Your task to perform on an android device: change keyboard looks Image 0: 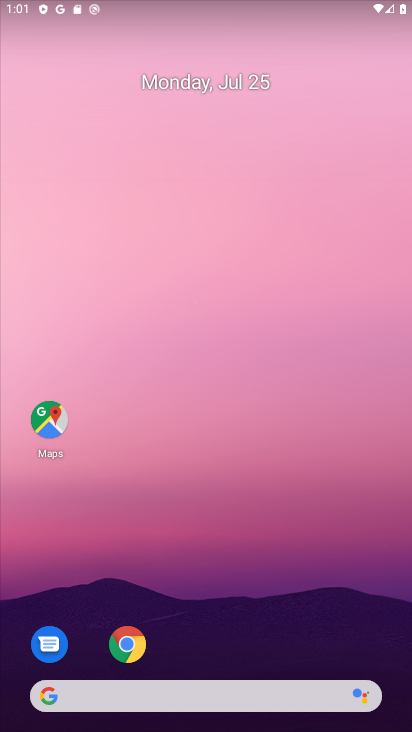
Step 0: drag from (310, 627) to (296, 89)
Your task to perform on an android device: change keyboard looks Image 1: 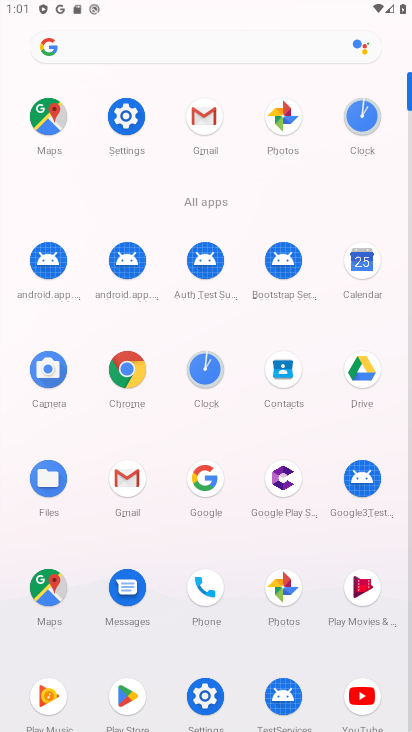
Step 1: click (121, 112)
Your task to perform on an android device: change keyboard looks Image 2: 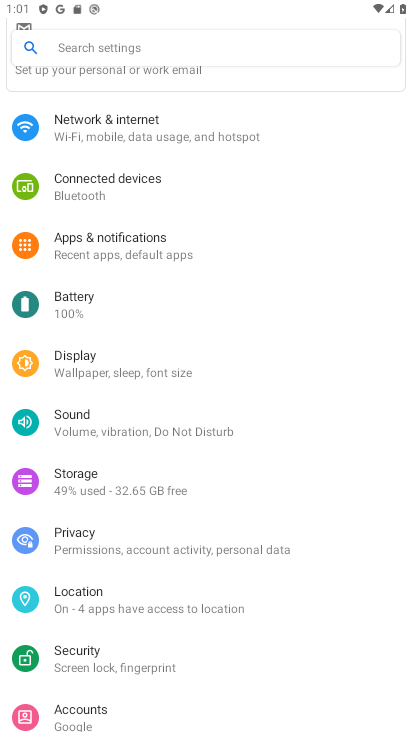
Step 2: drag from (124, 630) to (115, 304)
Your task to perform on an android device: change keyboard looks Image 3: 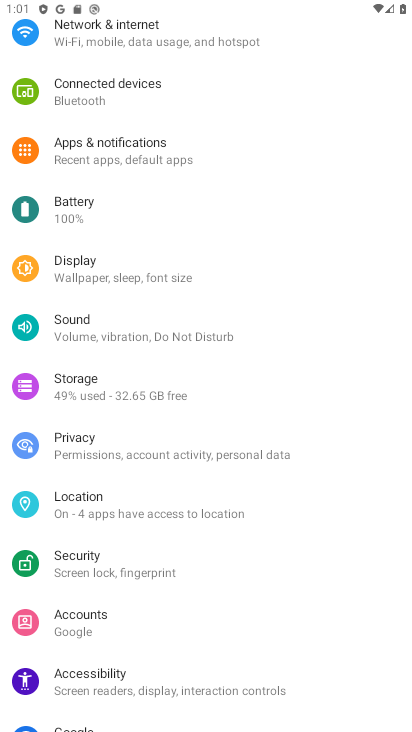
Step 3: drag from (147, 591) to (144, 258)
Your task to perform on an android device: change keyboard looks Image 4: 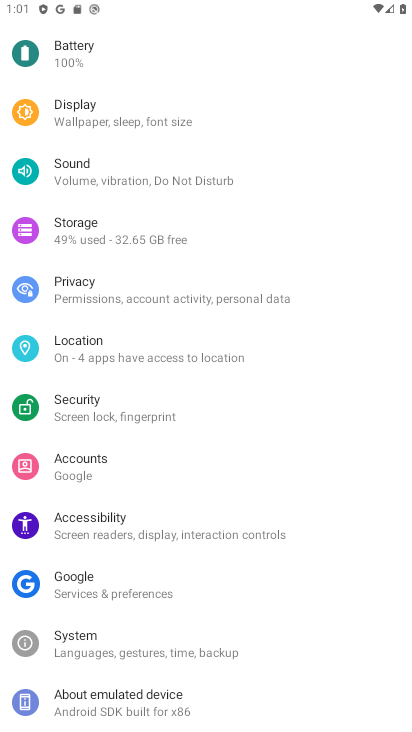
Step 4: click (103, 643)
Your task to perform on an android device: change keyboard looks Image 5: 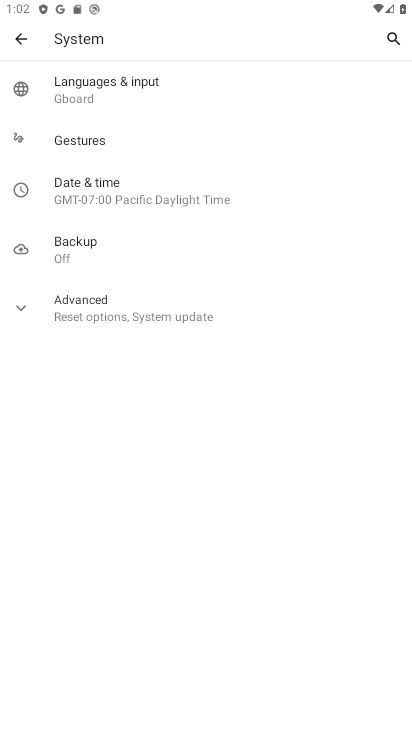
Step 5: click (191, 76)
Your task to perform on an android device: change keyboard looks Image 6: 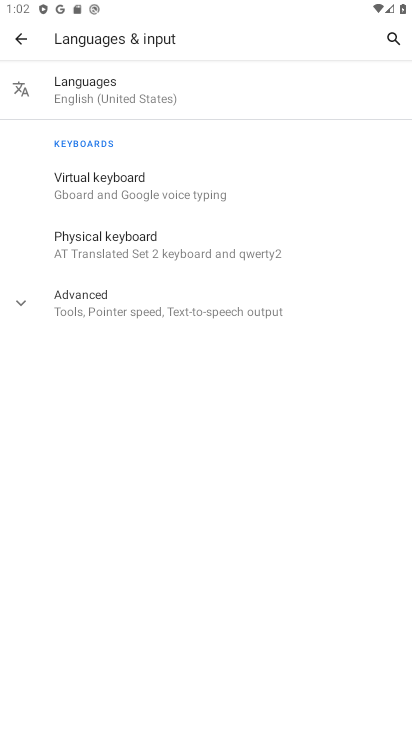
Step 6: click (113, 177)
Your task to perform on an android device: change keyboard looks Image 7: 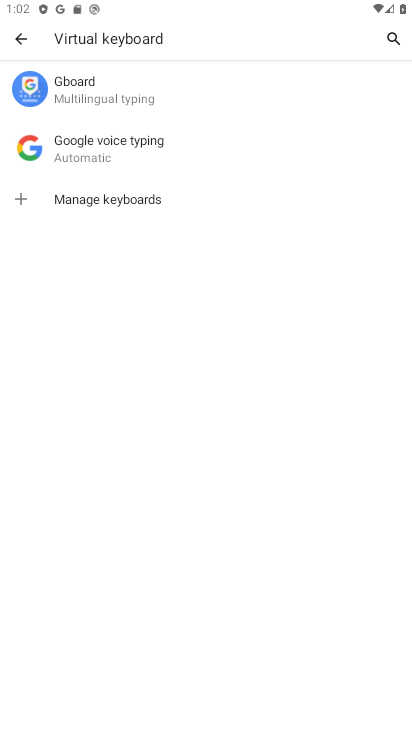
Step 7: click (113, 76)
Your task to perform on an android device: change keyboard looks Image 8: 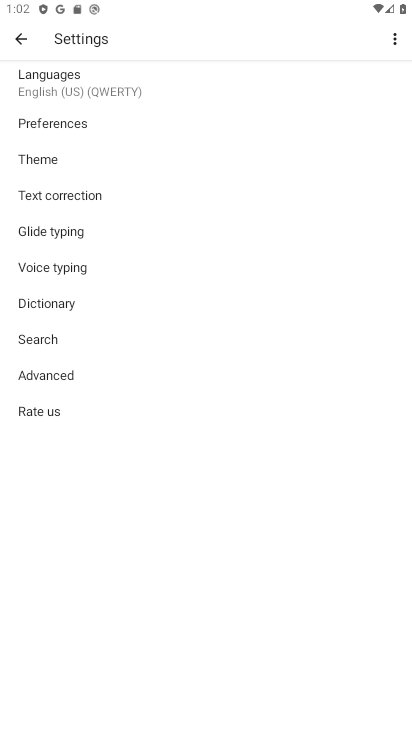
Step 8: click (48, 155)
Your task to perform on an android device: change keyboard looks Image 9: 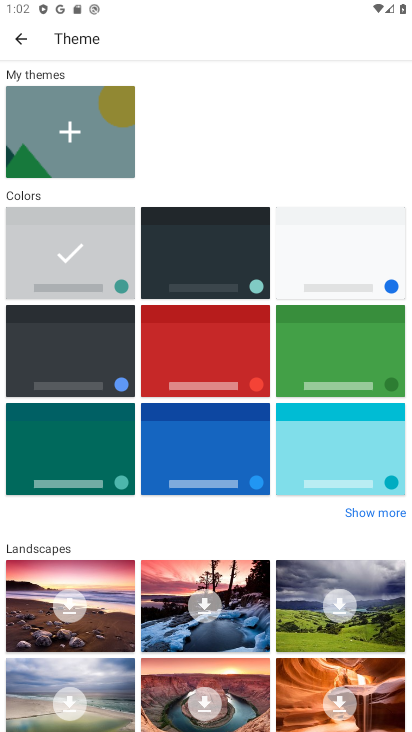
Step 9: click (240, 477)
Your task to perform on an android device: change keyboard looks Image 10: 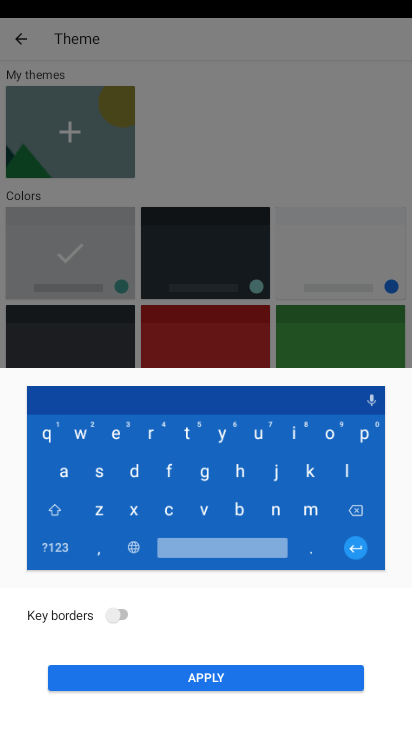
Step 10: click (275, 677)
Your task to perform on an android device: change keyboard looks Image 11: 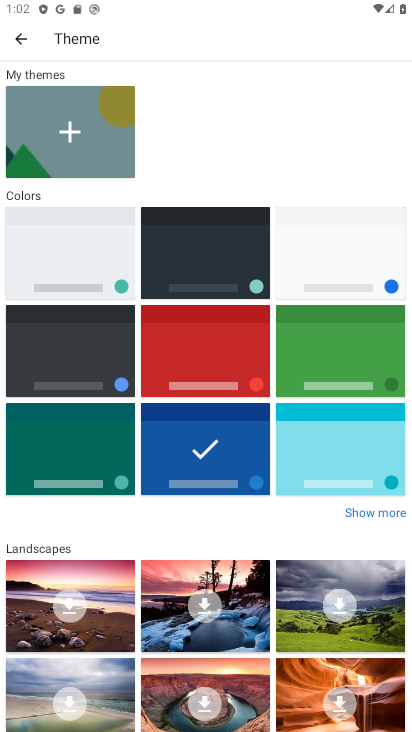
Step 11: task complete